Your task to perform on an android device: Search for pizza restaurants on Maps Image 0: 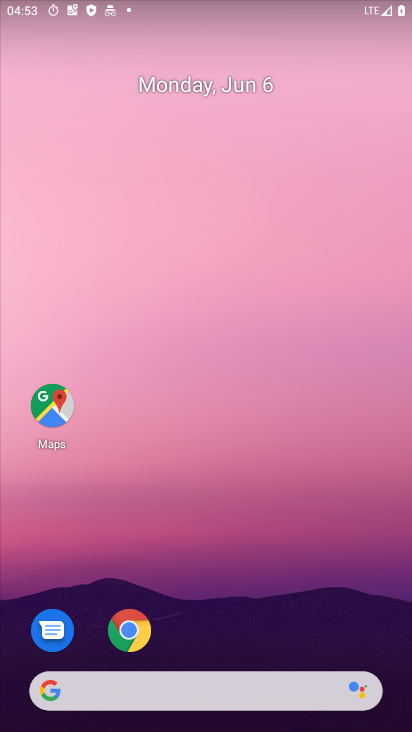
Step 0: drag from (204, 630) to (286, 107)
Your task to perform on an android device: Search for pizza restaurants on Maps Image 1: 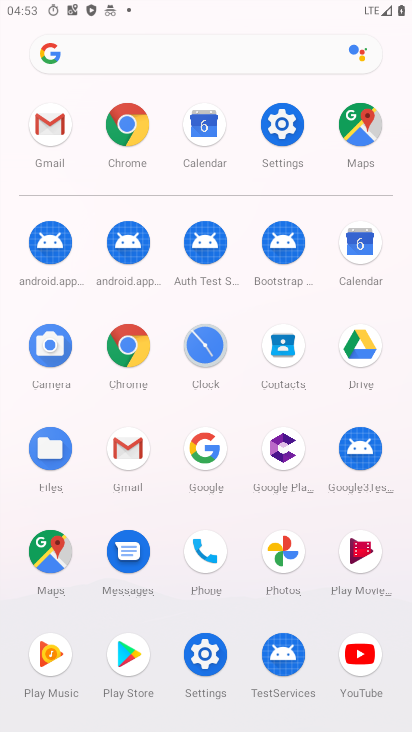
Step 1: click (44, 547)
Your task to perform on an android device: Search for pizza restaurants on Maps Image 2: 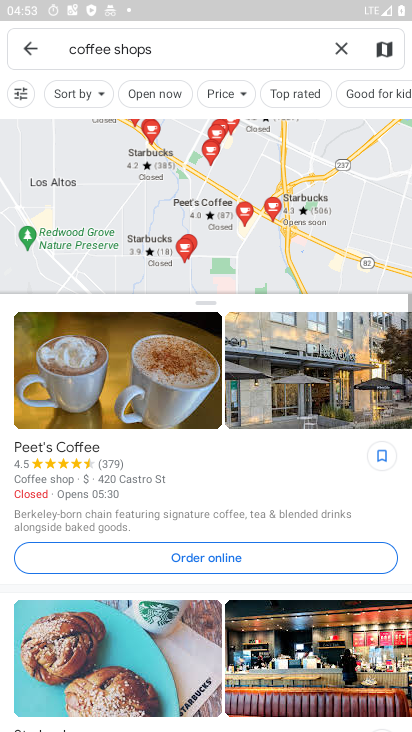
Step 2: click (338, 42)
Your task to perform on an android device: Search for pizza restaurants on Maps Image 3: 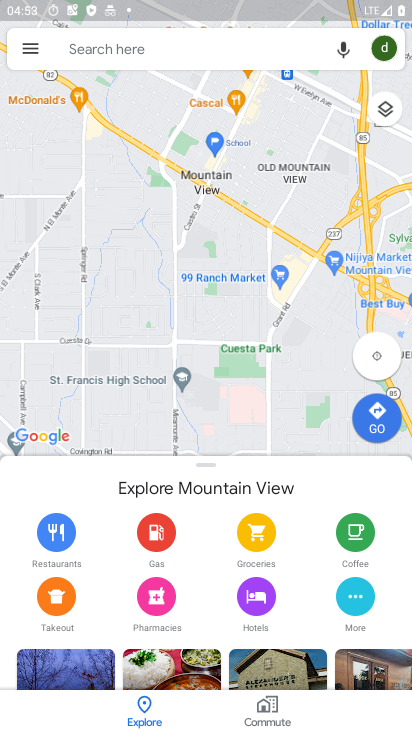
Step 3: click (119, 36)
Your task to perform on an android device: Search for pizza restaurants on Maps Image 4: 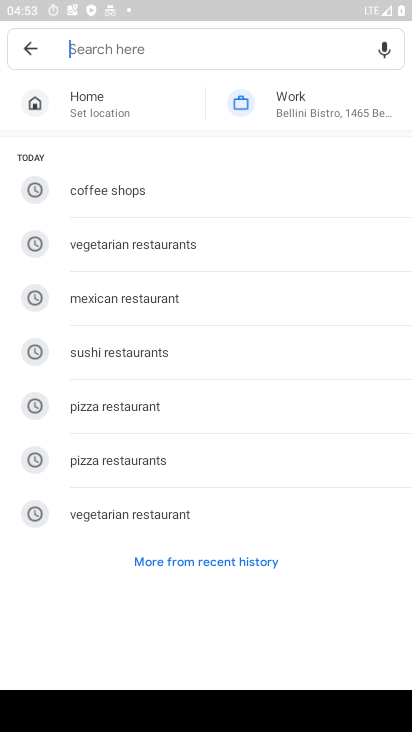
Step 4: type " pizza restaurants"
Your task to perform on an android device: Search for pizza restaurants on Maps Image 5: 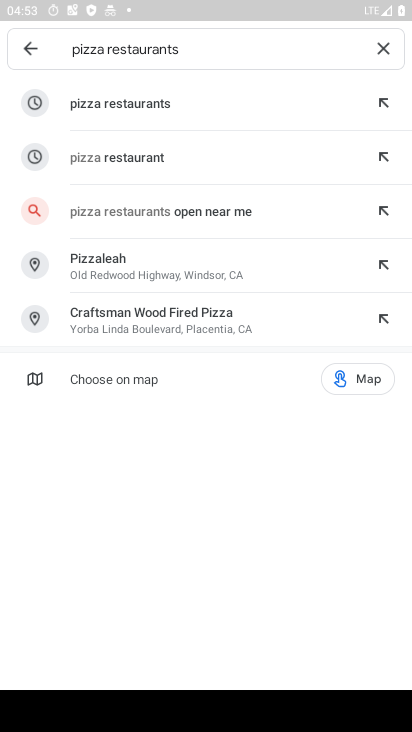
Step 5: click (78, 96)
Your task to perform on an android device: Search for pizza restaurants on Maps Image 6: 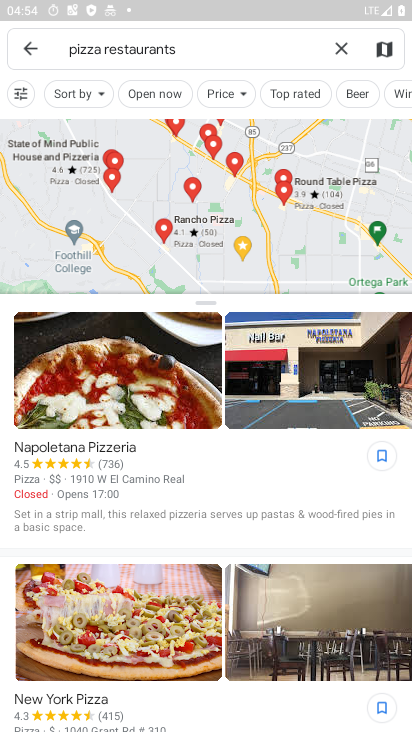
Step 6: task complete